Your task to perform on an android device: Search for Mexican restaurants on Maps Image 0: 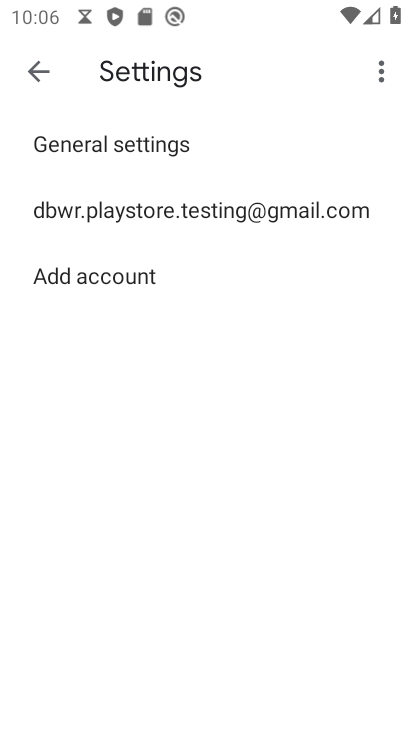
Step 0: press back button
Your task to perform on an android device: Search for Mexican restaurants on Maps Image 1: 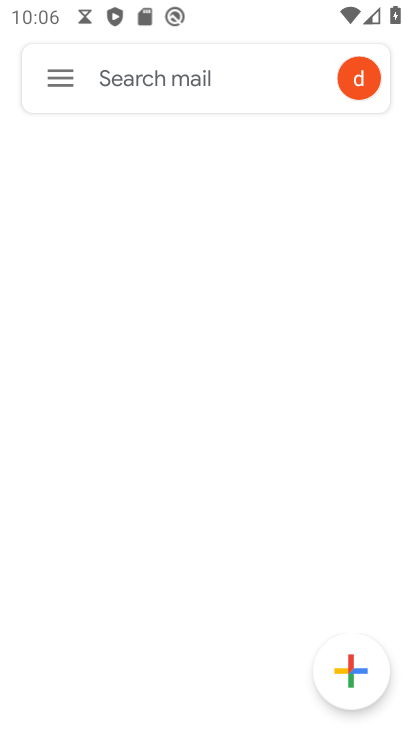
Step 1: press back button
Your task to perform on an android device: Search for Mexican restaurants on Maps Image 2: 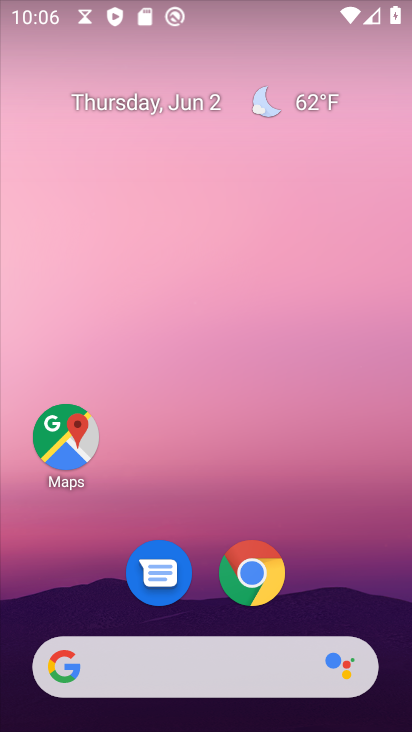
Step 2: click (67, 437)
Your task to perform on an android device: Search for Mexican restaurants on Maps Image 3: 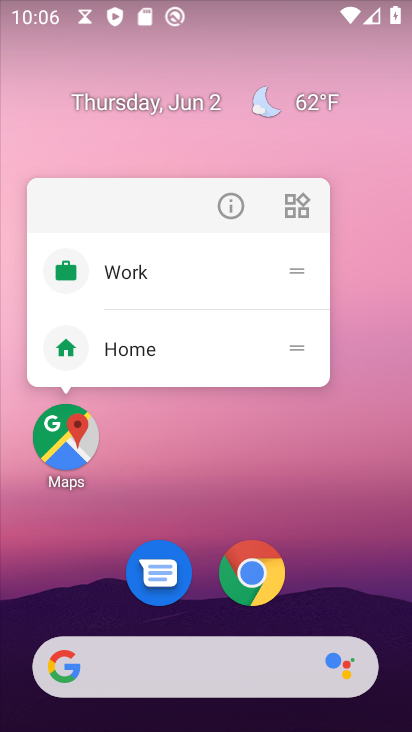
Step 3: click (69, 438)
Your task to perform on an android device: Search for Mexican restaurants on Maps Image 4: 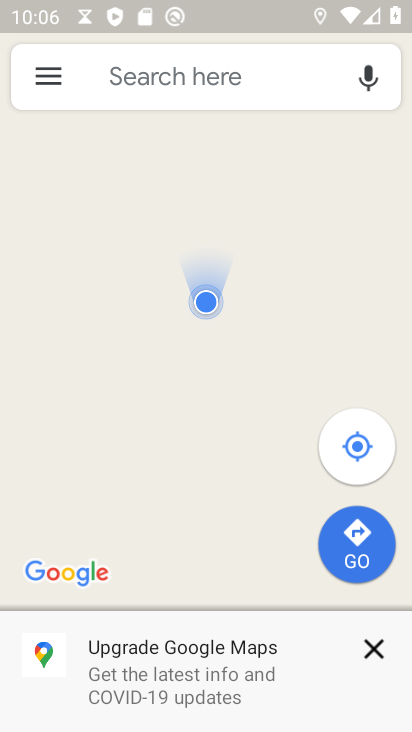
Step 4: click (228, 71)
Your task to perform on an android device: Search for Mexican restaurants on Maps Image 5: 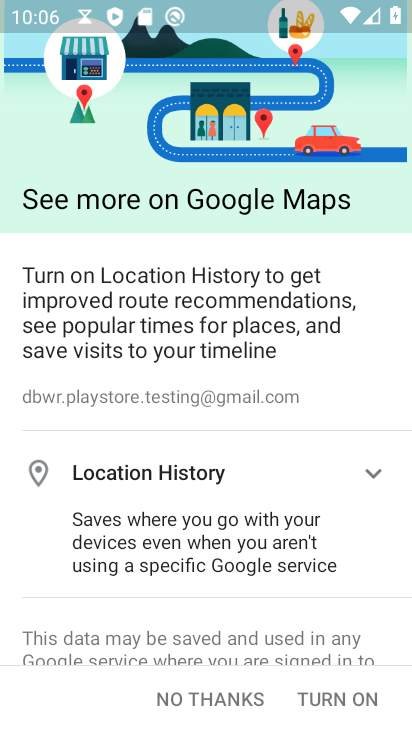
Step 5: click (213, 702)
Your task to perform on an android device: Search for Mexican restaurants on Maps Image 6: 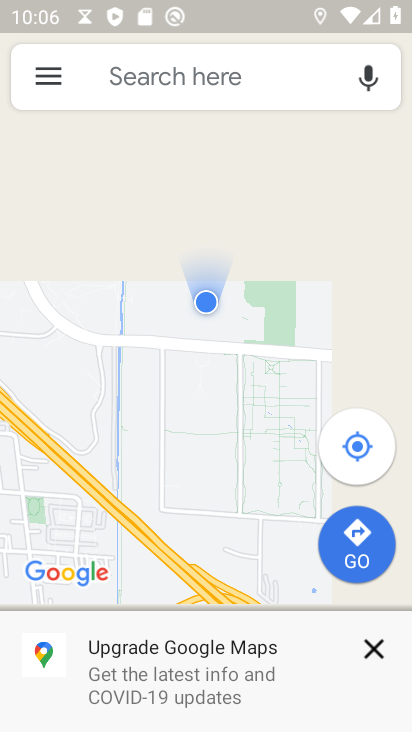
Step 6: click (236, 86)
Your task to perform on an android device: Search for Mexican restaurants on Maps Image 7: 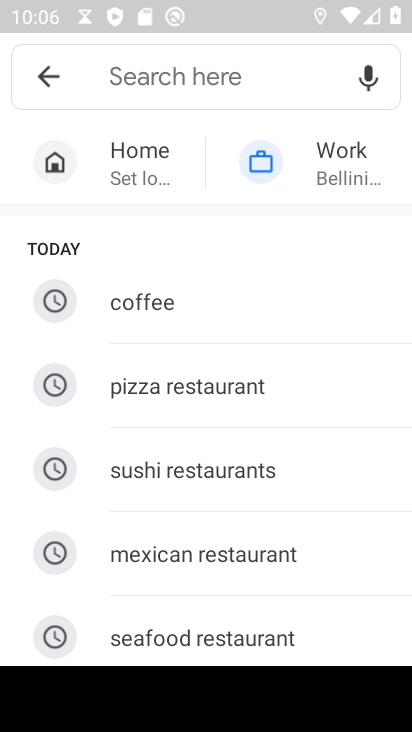
Step 7: click (216, 551)
Your task to perform on an android device: Search for Mexican restaurants on Maps Image 8: 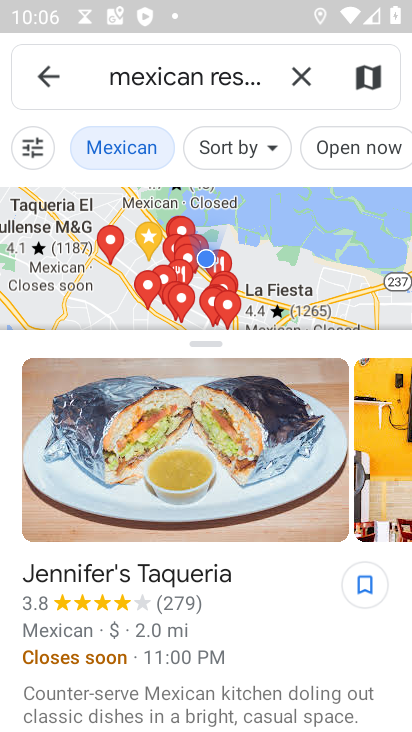
Step 8: task complete